Your task to perform on an android device: Search for the best selling jewelry on Etsy. Image 0: 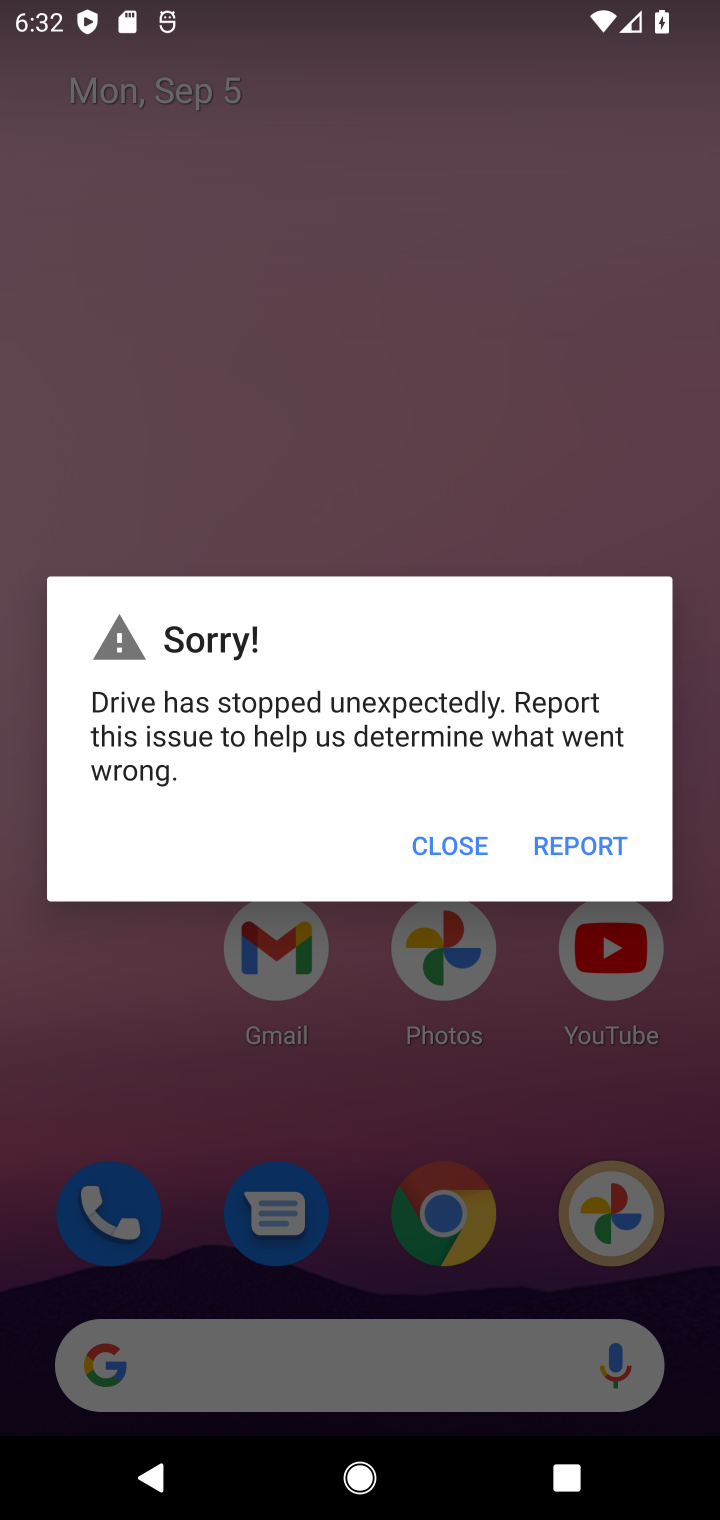
Step 0: press home button
Your task to perform on an android device: Search for the best selling jewelry on Etsy. Image 1: 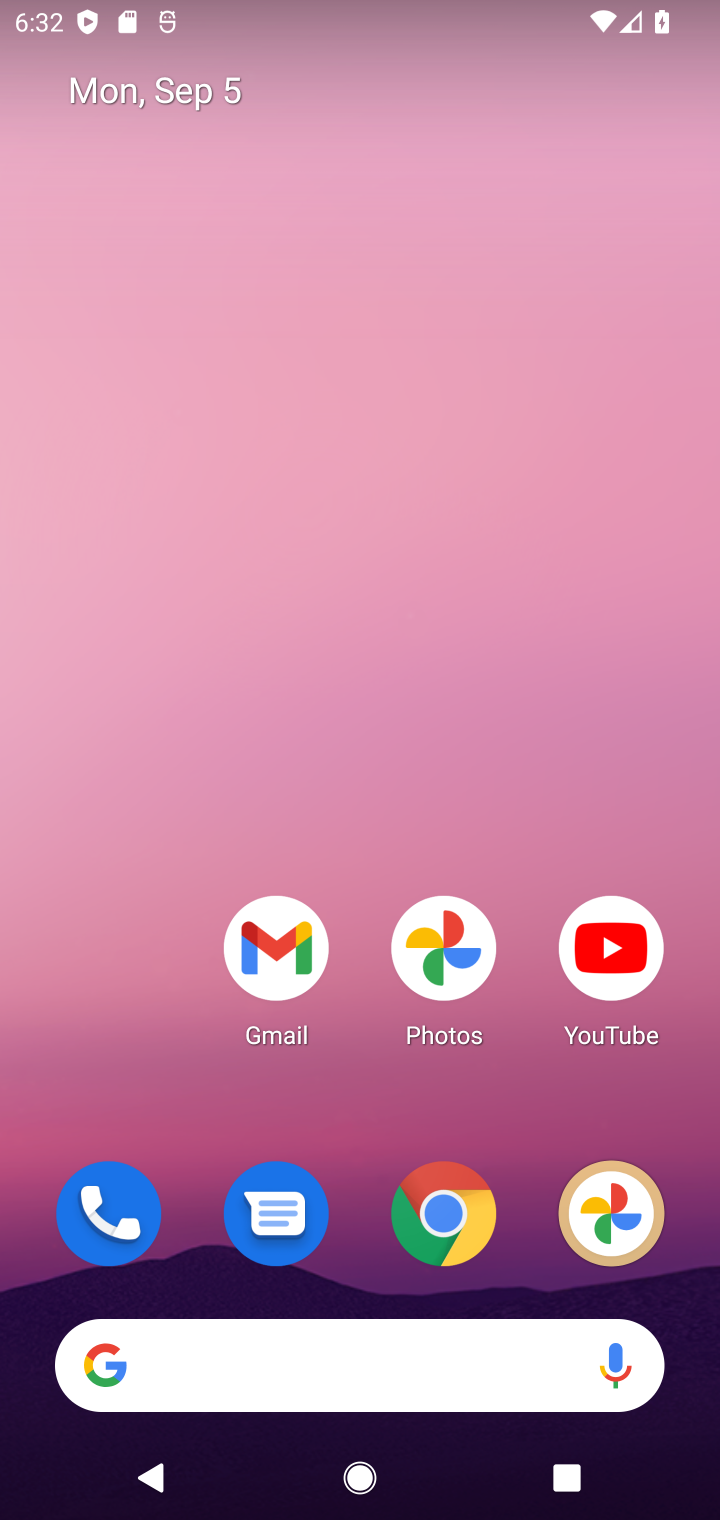
Step 1: click (403, 1218)
Your task to perform on an android device: Search for the best selling jewelry on Etsy. Image 2: 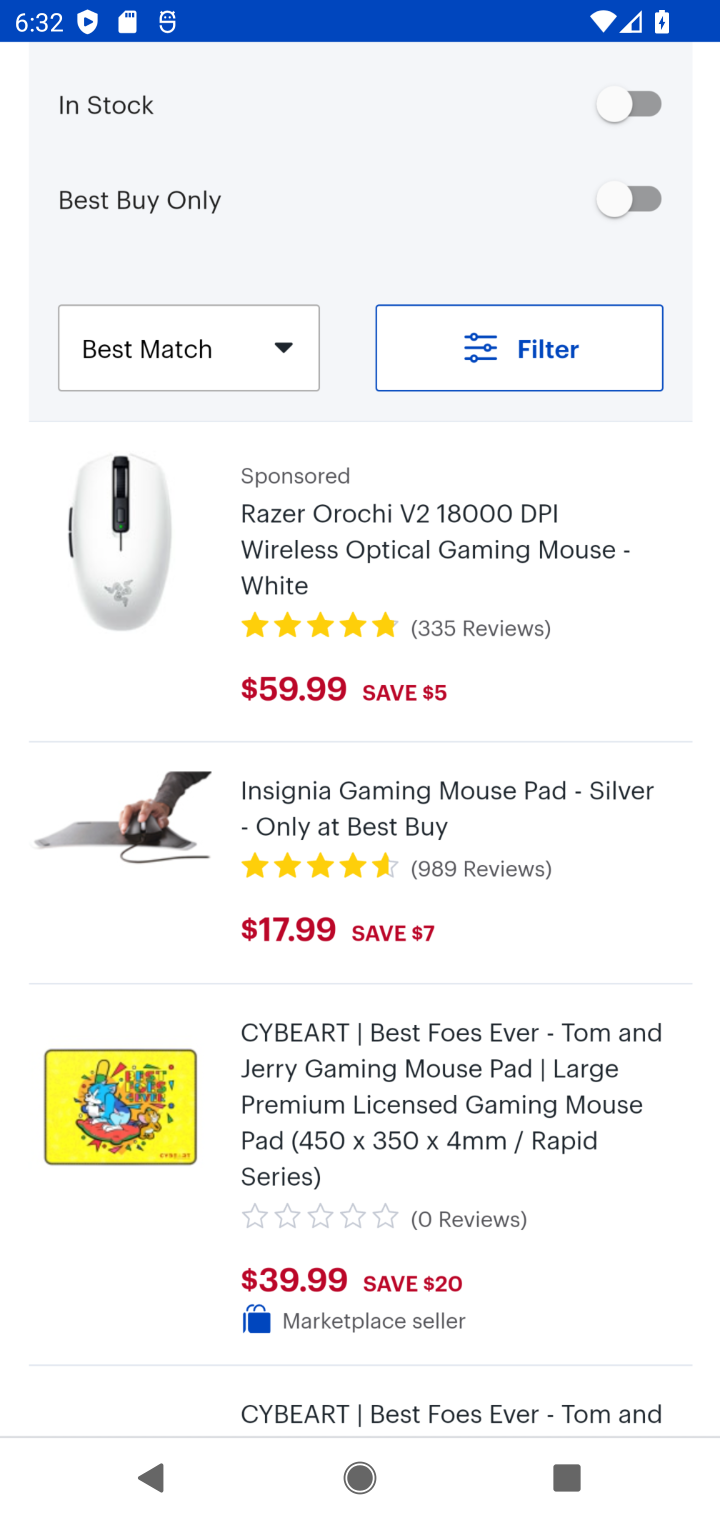
Step 2: click (447, 1231)
Your task to perform on an android device: Search for the best selling jewelry on Etsy. Image 3: 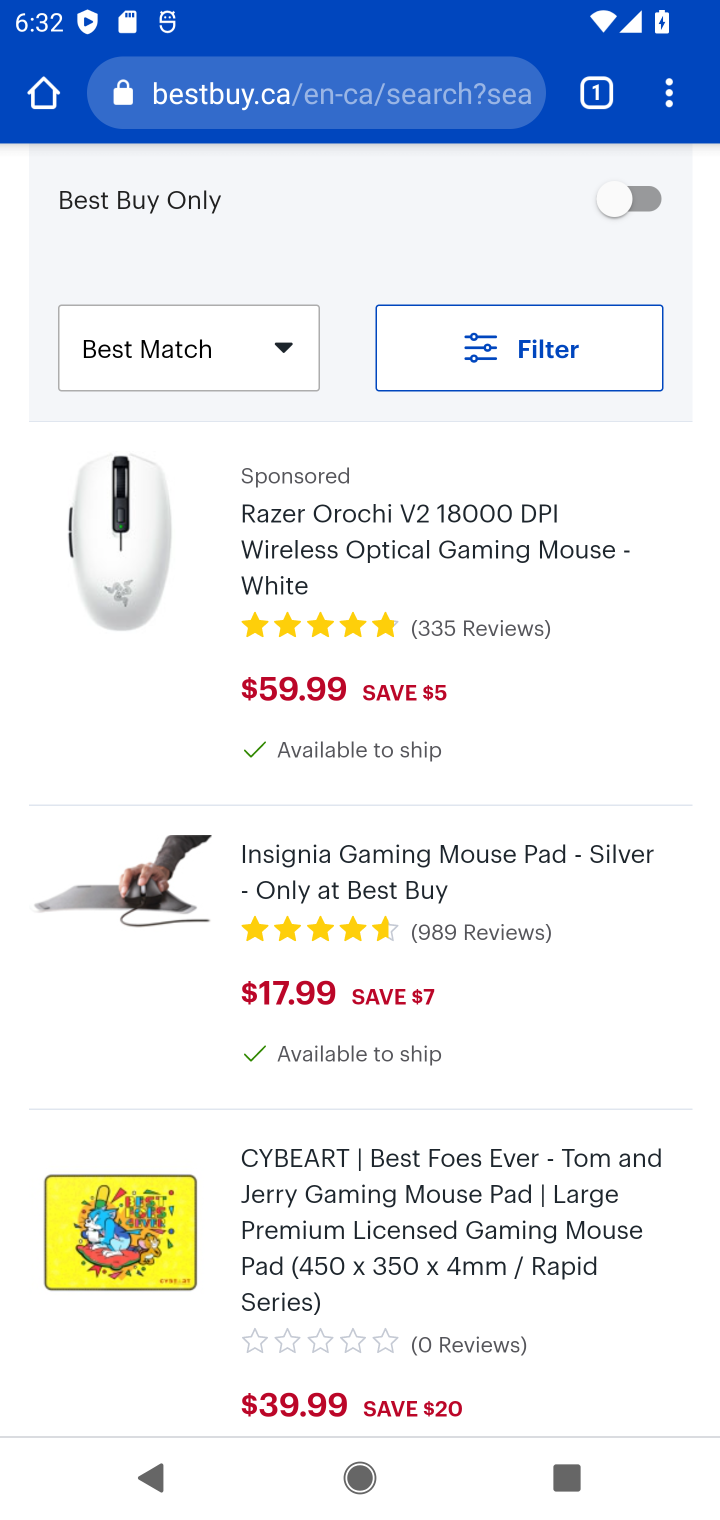
Step 3: click (299, 82)
Your task to perform on an android device: Search for the best selling jewelry on Etsy. Image 4: 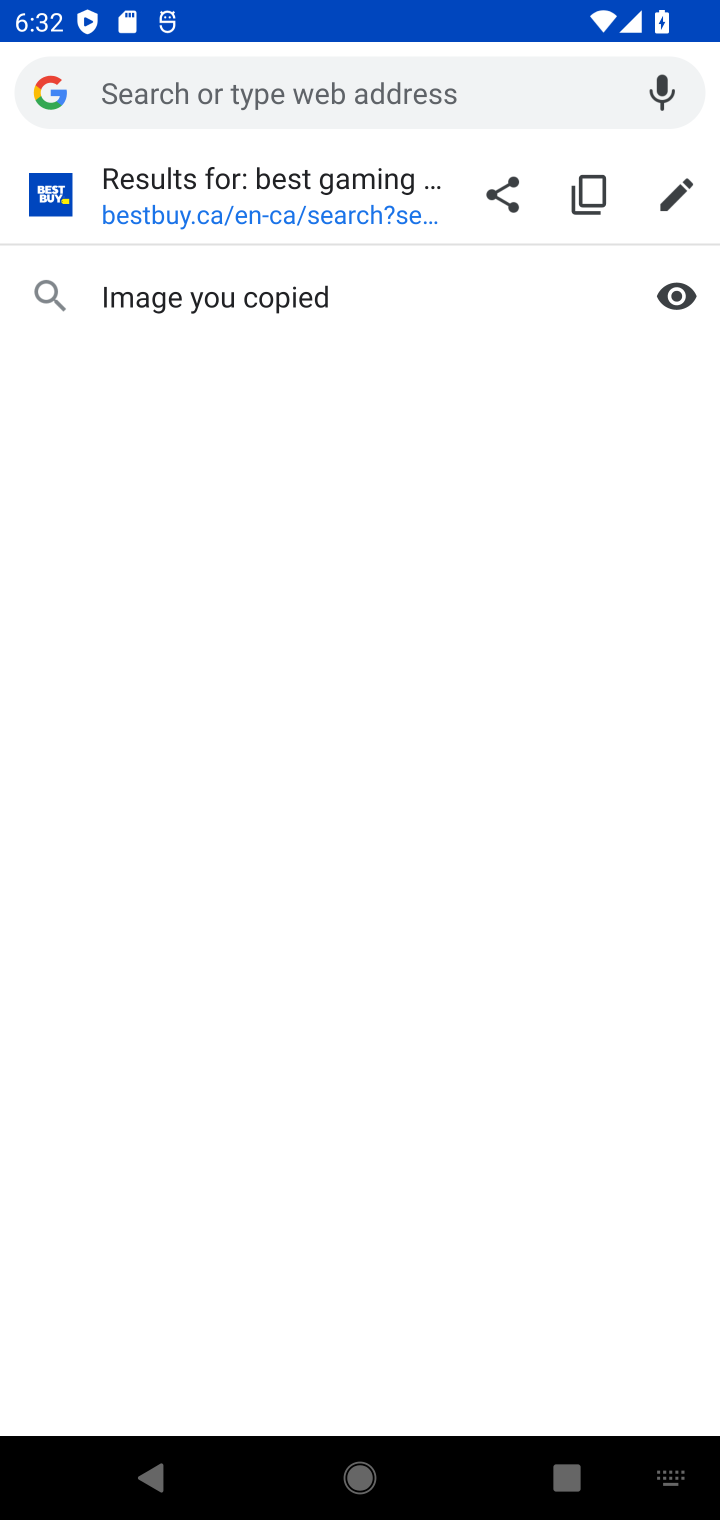
Step 4: type " Etsy."
Your task to perform on an android device: Search for the best selling jewelry on Etsy. Image 5: 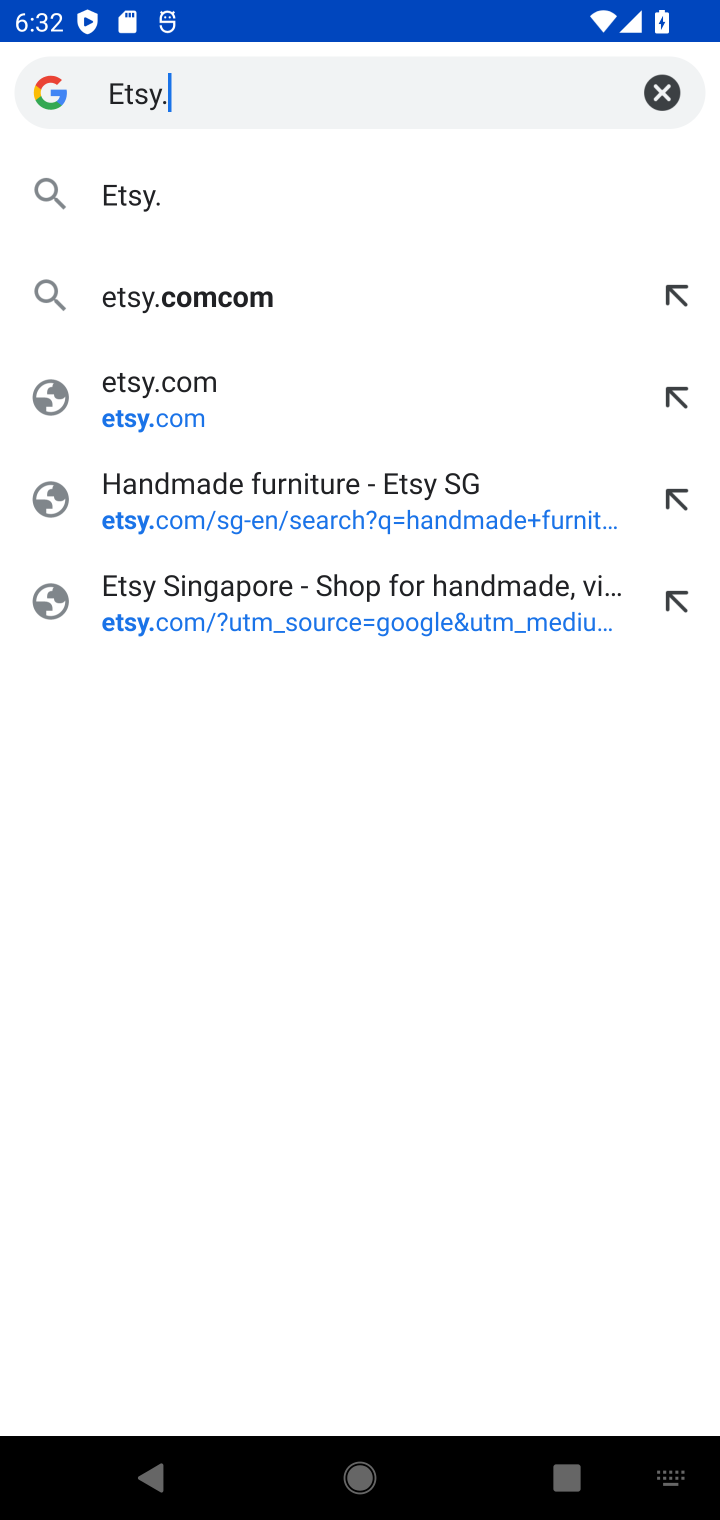
Step 5: click (135, 225)
Your task to perform on an android device: Search for the best selling jewelry on Etsy. Image 6: 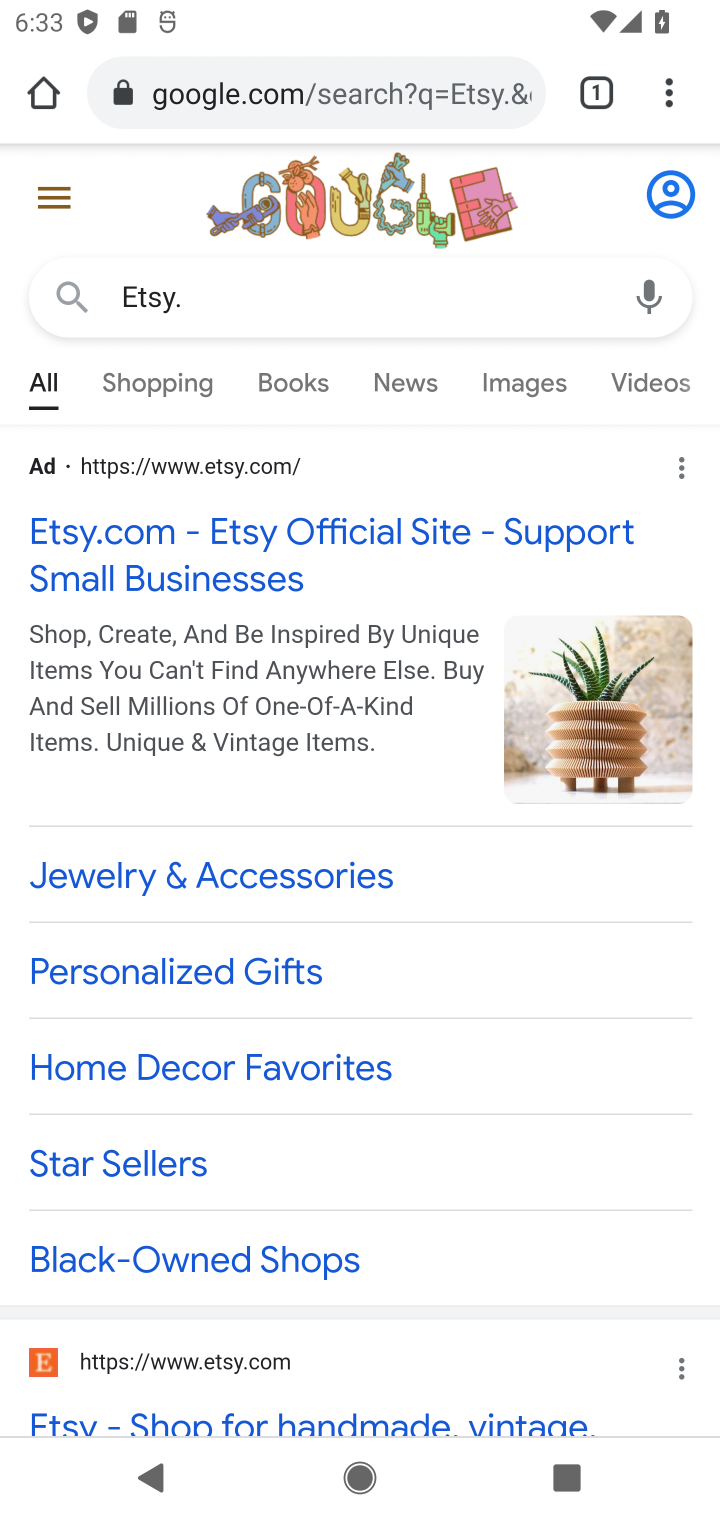
Step 6: drag from (205, 930) to (217, 345)
Your task to perform on an android device: Search for the best selling jewelry on Etsy. Image 7: 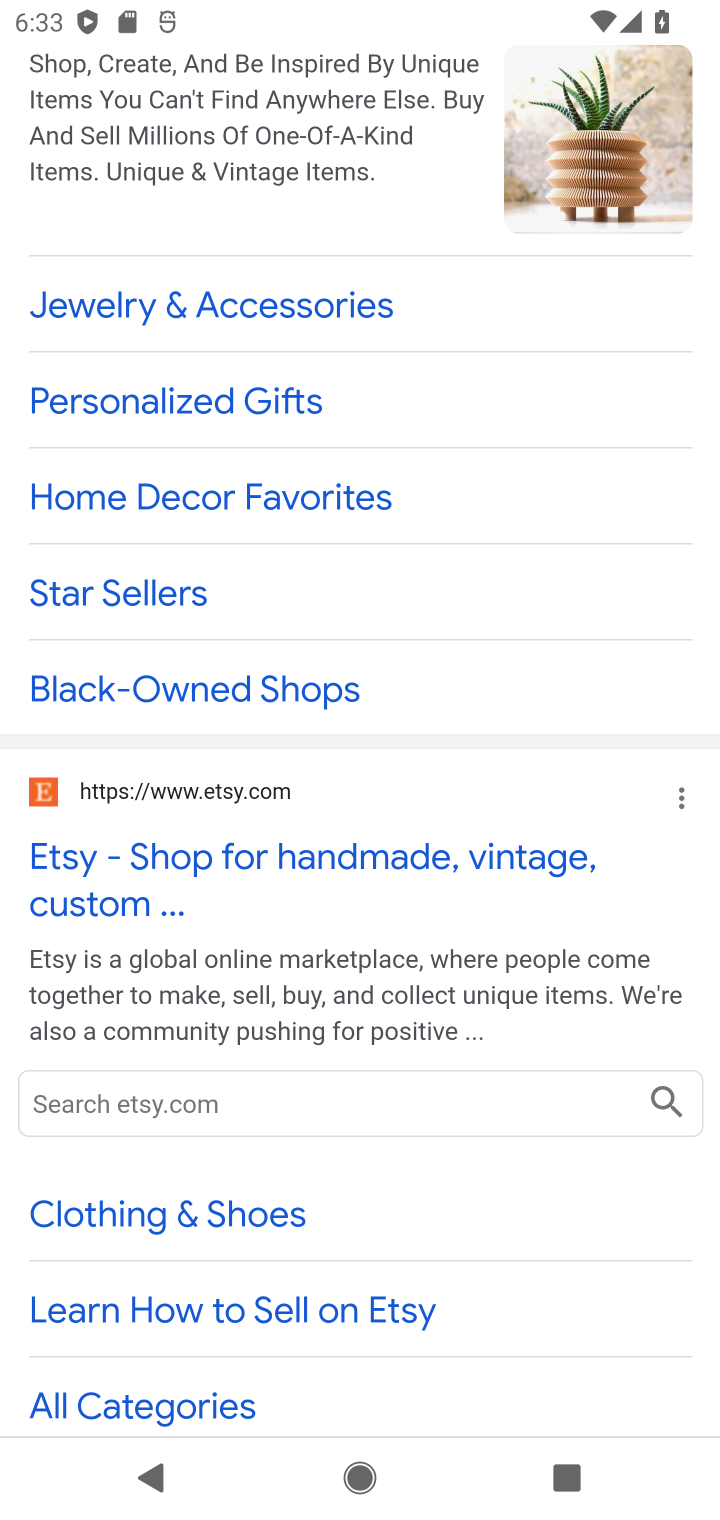
Step 7: click (105, 876)
Your task to perform on an android device: Search for the best selling jewelry on Etsy. Image 8: 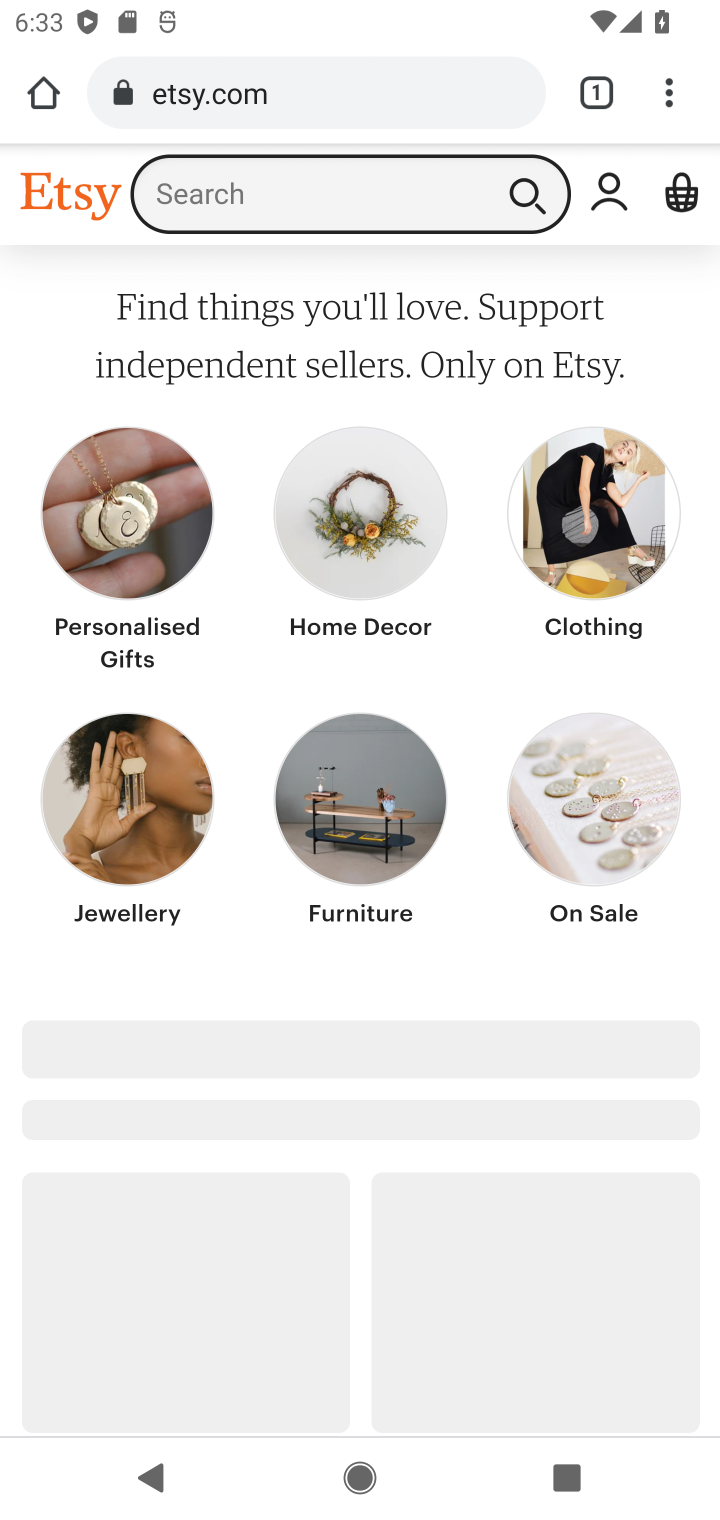
Step 8: click (273, 199)
Your task to perform on an android device: Search for the best selling jewelry on Etsy. Image 9: 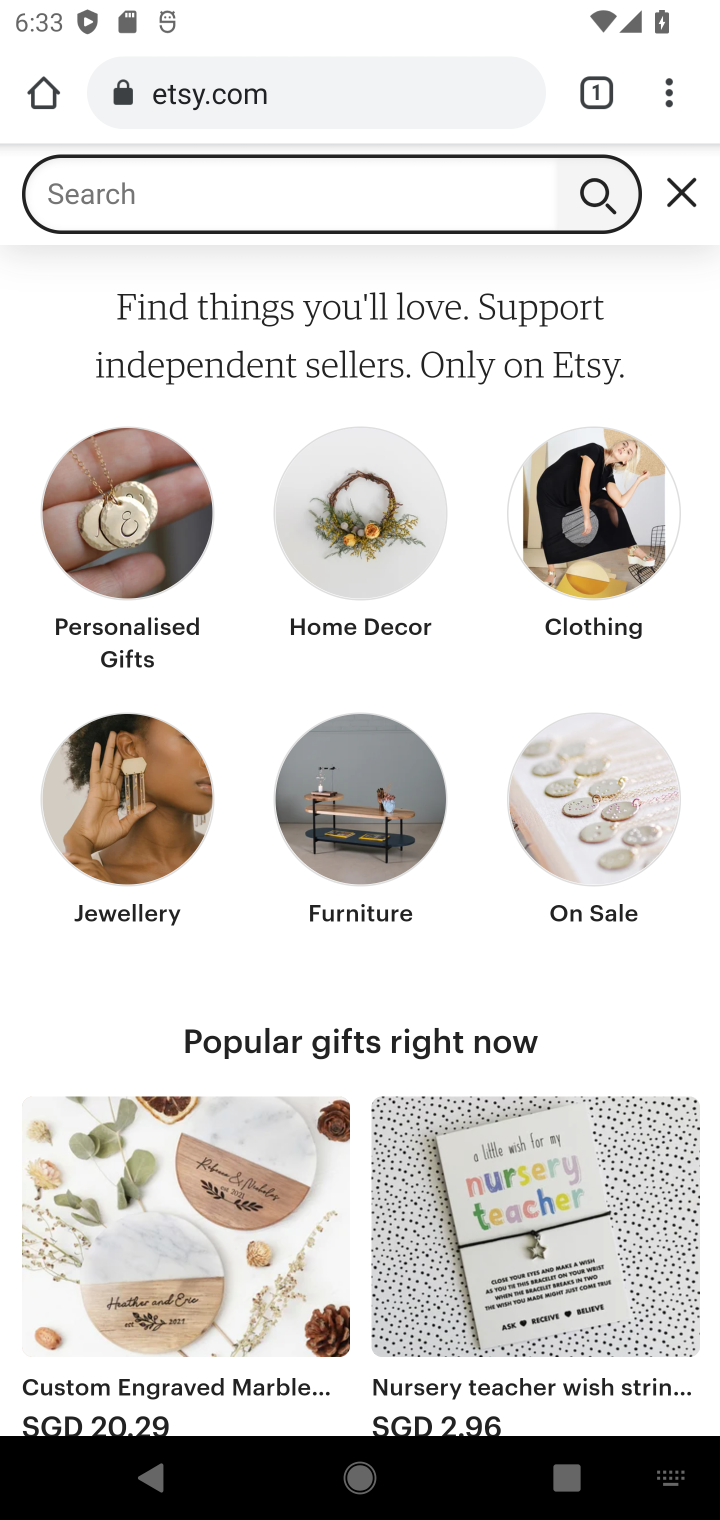
Step 9: type "best selling jewelry"
Your task to perform on an android device: Search for the best selling jewelry on Etsy. Image 10: 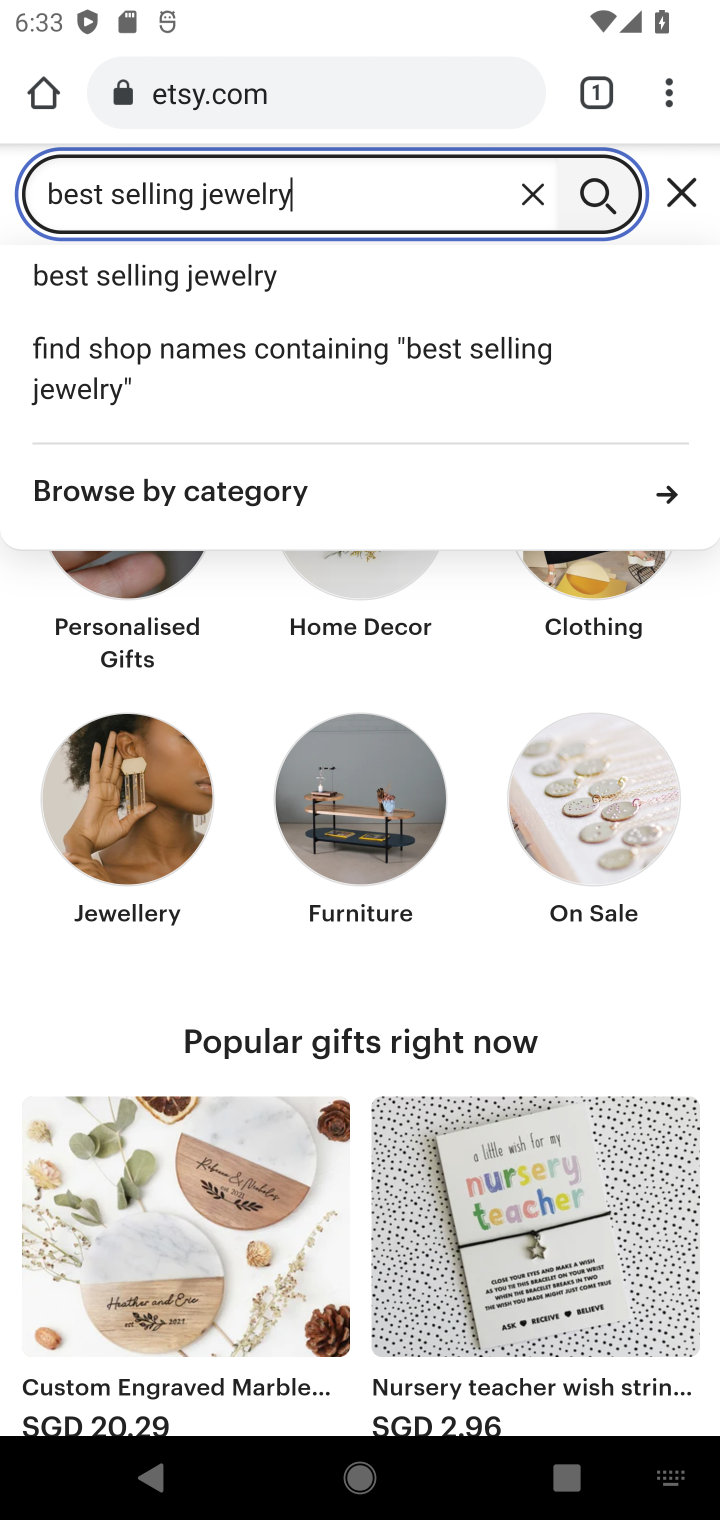
Step 10: click (603, 192)
Your task to perform on an android device: Search for the best selling jewelry on Etsy. Image 11: 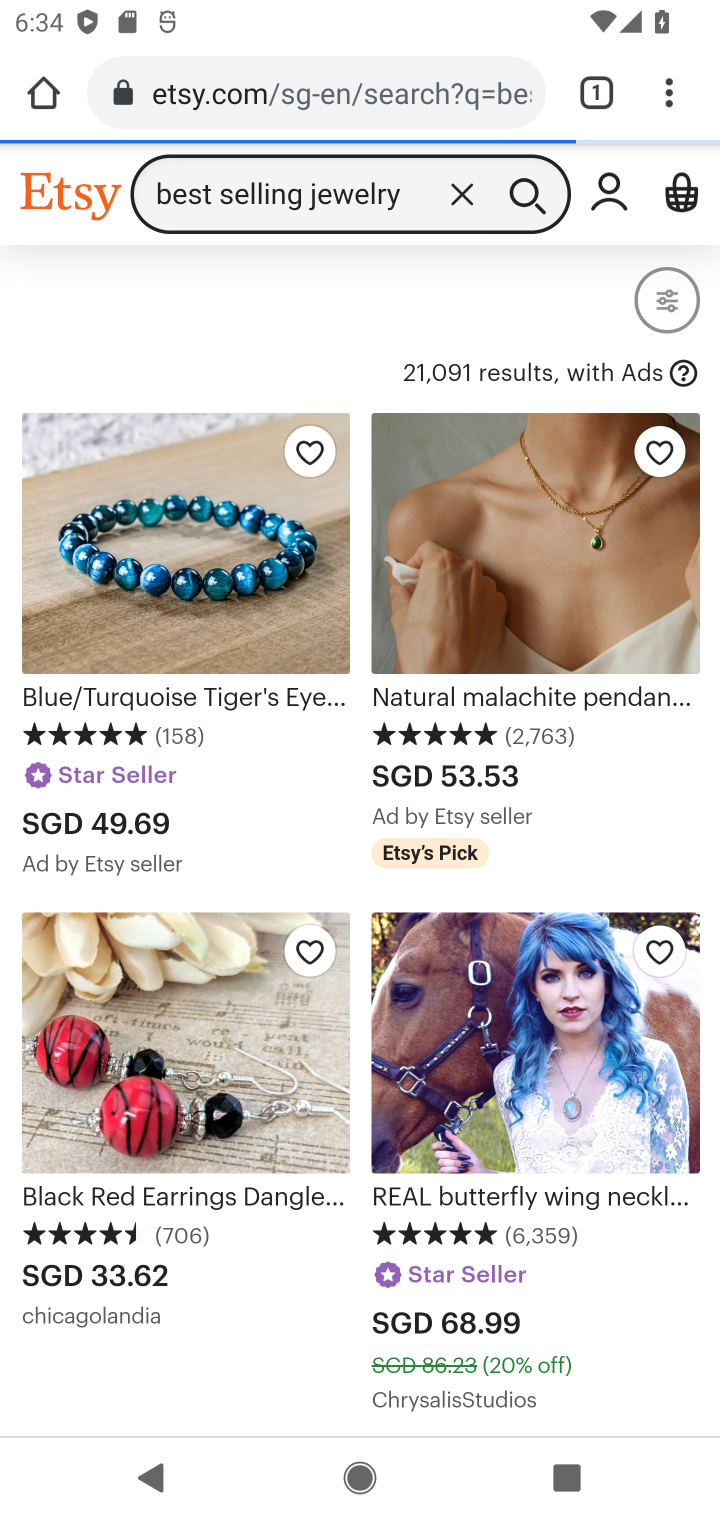
Step 11: task complete